Your task to perform on an android device: turn off notifications settings in the gmail app Image 0: 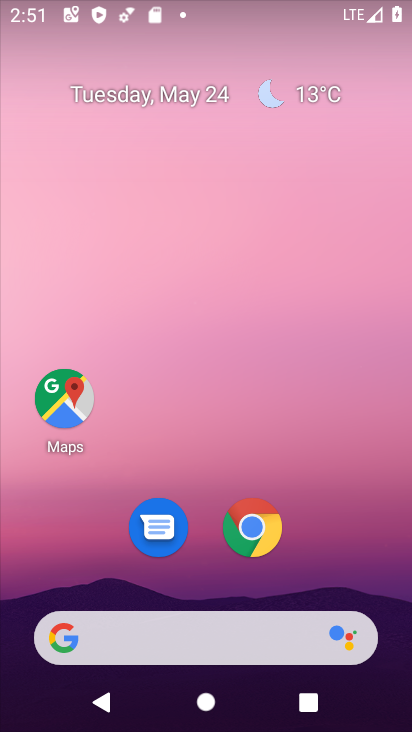
Step 0: drag from (342, 577) to (393, 0)
Your task to perform on an android device: turn off notifications settings in the gmail app Image 1: 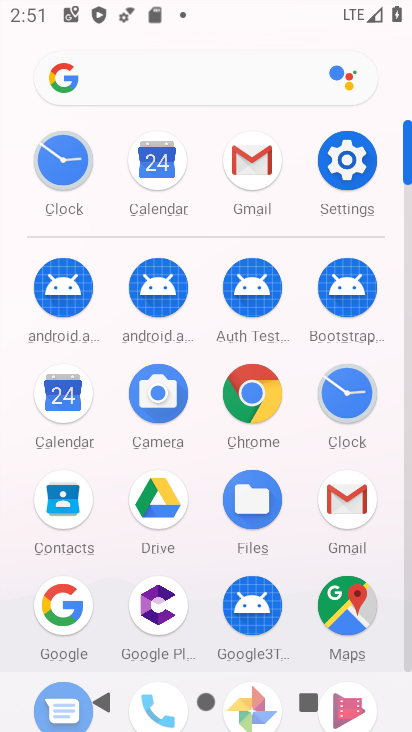
Step 1: click (336, 505)
Your task to perform on an android device: turn off notifications settings in the gmail app Image 2: 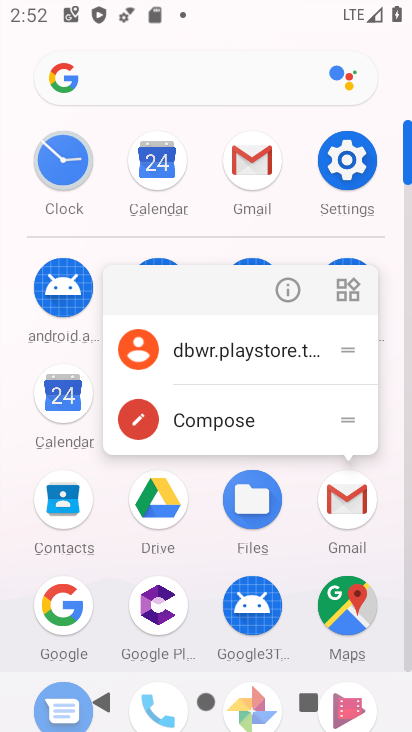
Step 2: click (337, 505)
Your task to perform on an android device: turn off notifications settings in the gmail app Image 3: 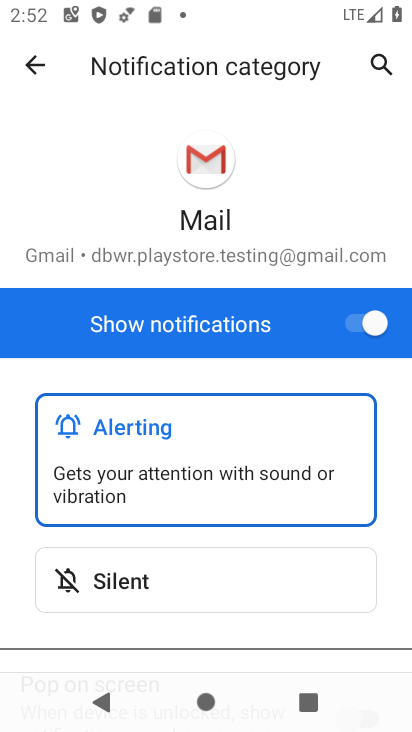
Step 3: click (361, 324)
Your task to perform on an android device: turn off notifications settings in the gmail app Image 4: 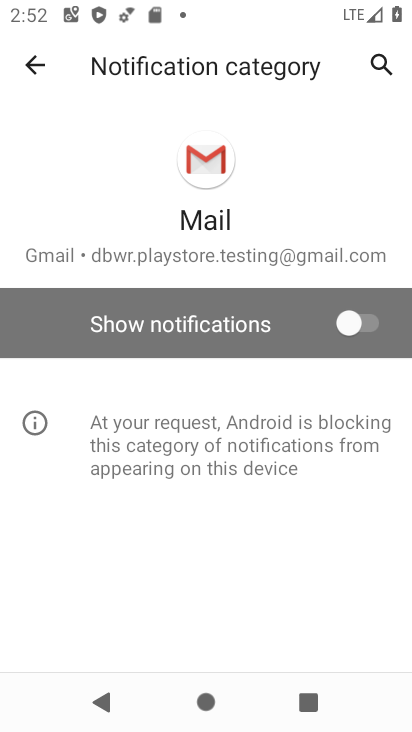
Step 4: task complete